Your task to perform on an android device: move an email to a new category in the gmail app Image 0: 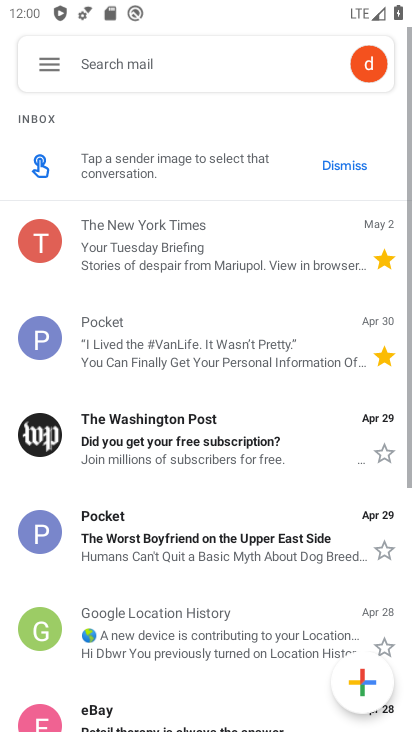
Step 0: press home button
Your task to perform on an android device: move an email to a new category in the gmail app Image 1: 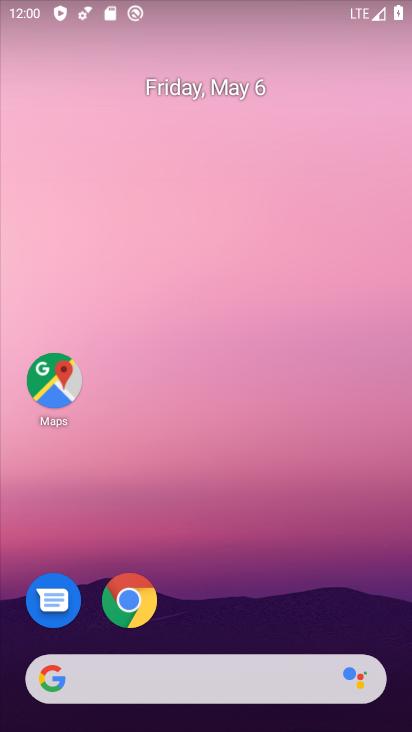
Step 1: drag from (340, 622) to (304, 154)
Your task to perform on an android device: move an email to a new category in the gmail app Image 2: 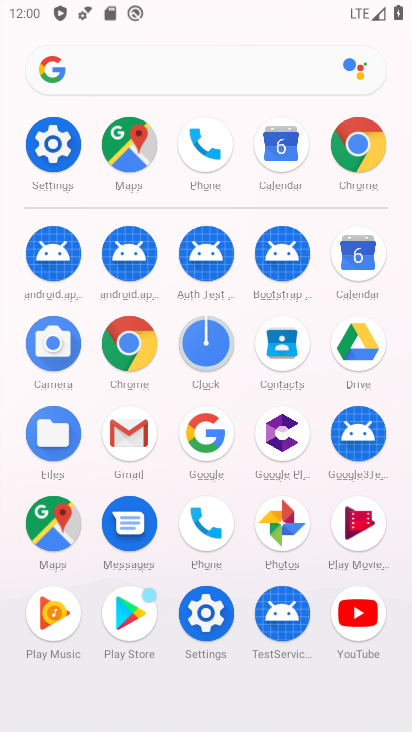
Step 2: click (140, 432)
Your task to perform on an android device: move an email to a new category in the gmail app Image 3: 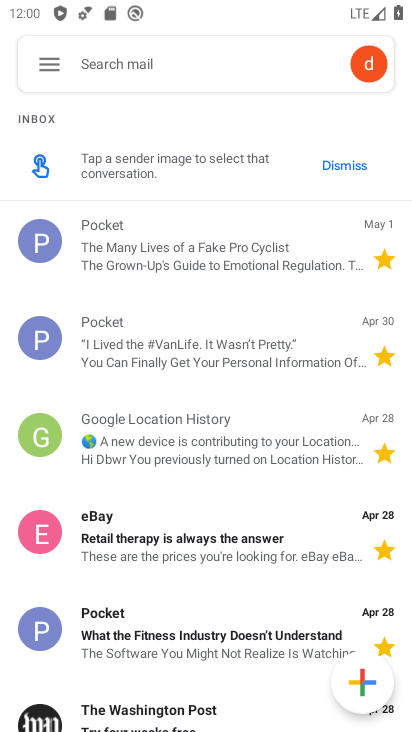
Step 3: click (188, 281)
Your task to perform on an android device: move an email to a new category in the gmail app Image 4: 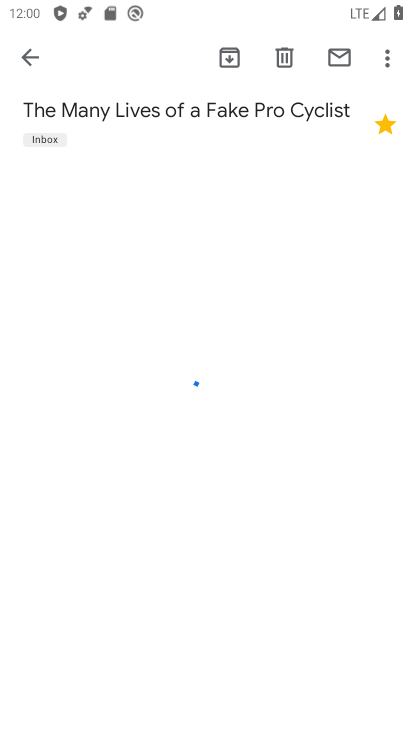
Step 4: click (388, 53)
Your task to perform on an android device: move an email to a new category in the gmail app Image 5: 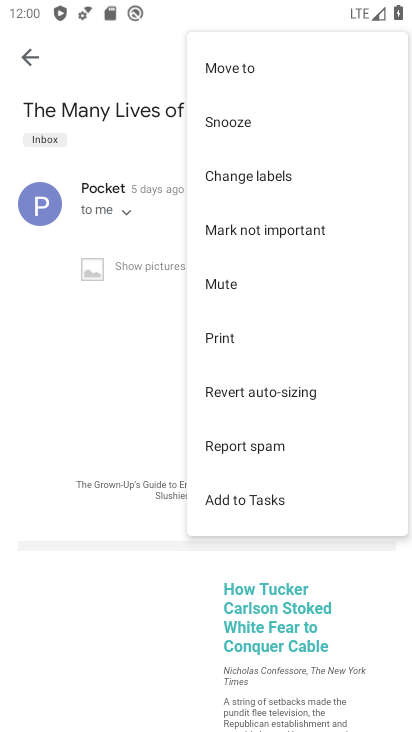
Step 5: click (327, 61)
Your task to perform on an android device: move an email to a new category in the gmail app Image 6: 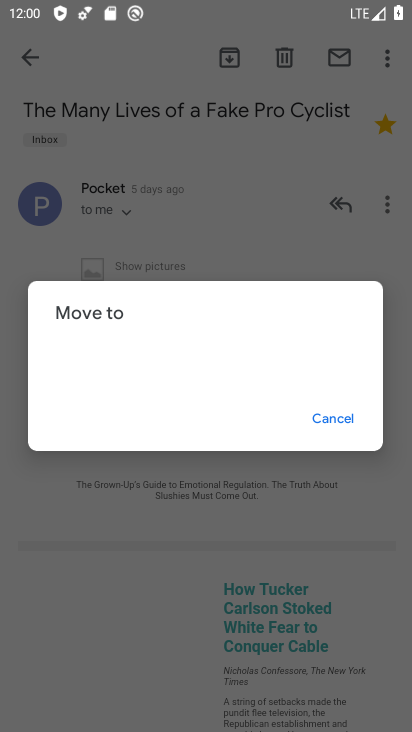
Step 6: task complete